Your task to perform on an android device: Open notification settings Image 0: 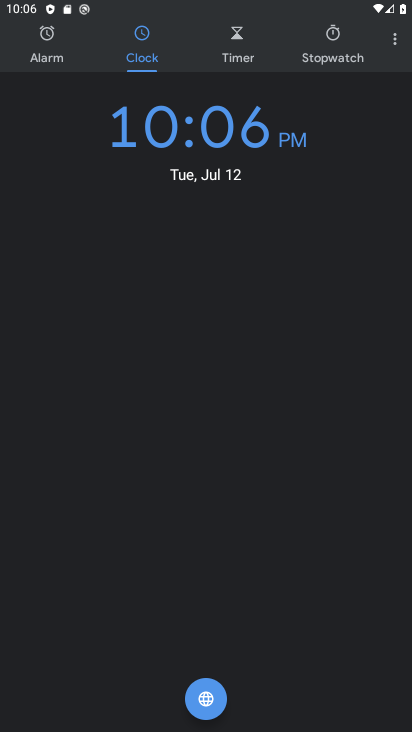
Step 0: press home button
Your task to perform on an android device: Open notification settings Image 1: 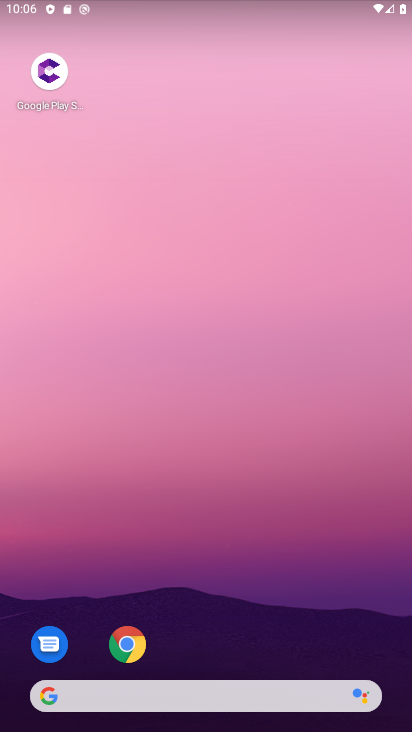
Step 1: drag from (225, 676) to (228, 232)
Your task to perform on an android device: Open notification settings Image 2: 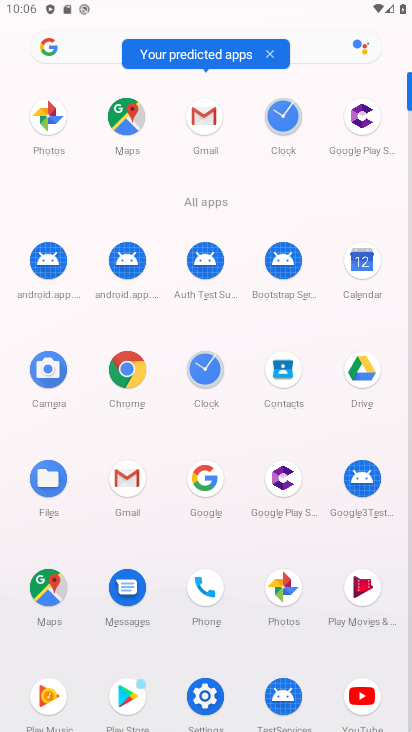
Step 2: click (204, 698)
Your task to perform on an android device: Open notification settings Image 3: 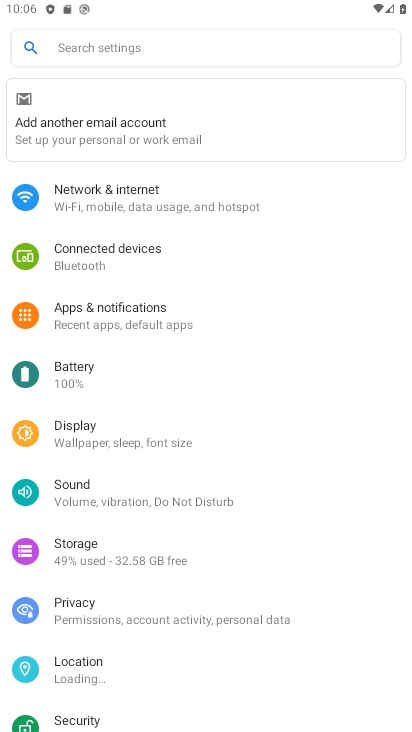
Step 3: click (120, 311)
Your task to perform on an android device: Open notification settings Image 4: 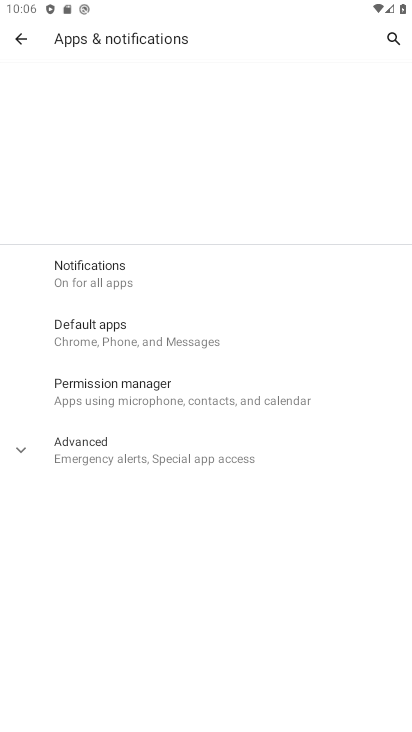
Step 4: click (102, 277)
Your task to perform on an android device: Open notification settings Image 5: 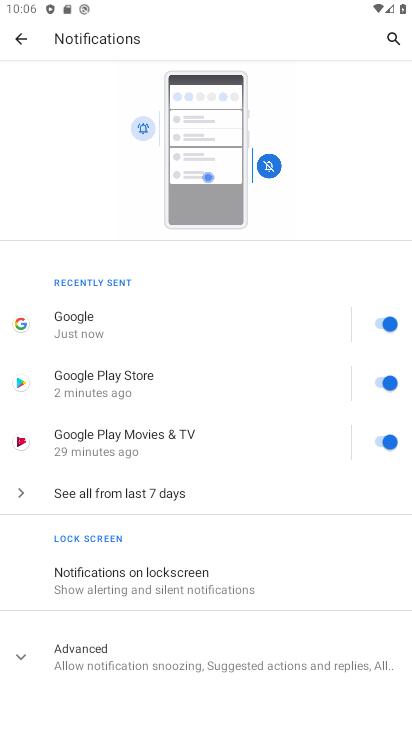
Step 5: task complete